Your task to perform on an android device: turn off sleep mode Image 0: 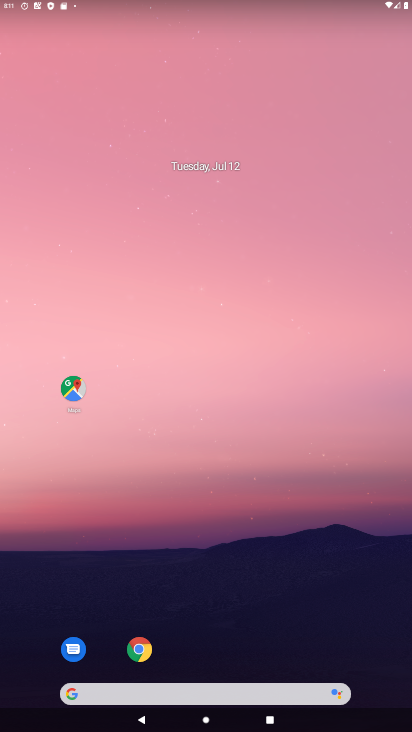
Step 0: drag from (285, 647) to (279, 146)
Your task to perform on an android device: turn off sleep mode Image 1: 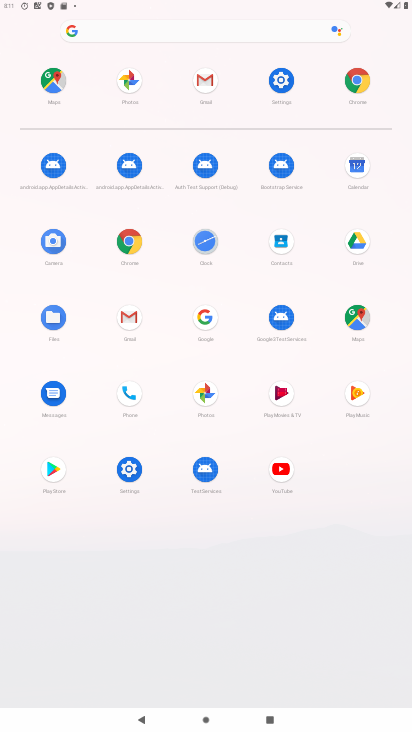
Step 1: click (290, 81)
Your task to perform on an android device: turn off sleep mode Image 2: 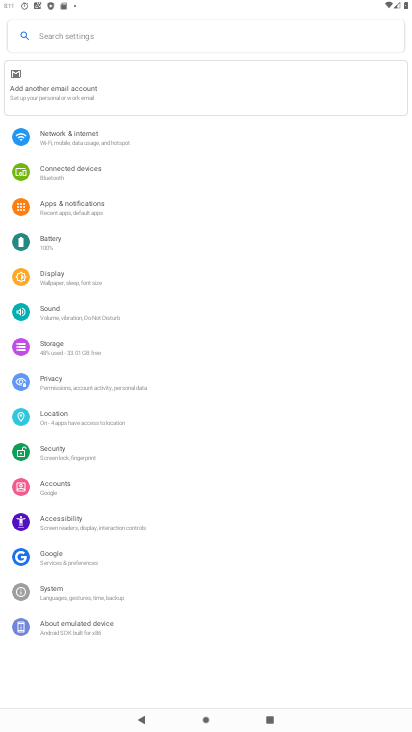
Step 2: click (90, 280)
Your task to perform on an android device: turn off sleep mode Image 3: 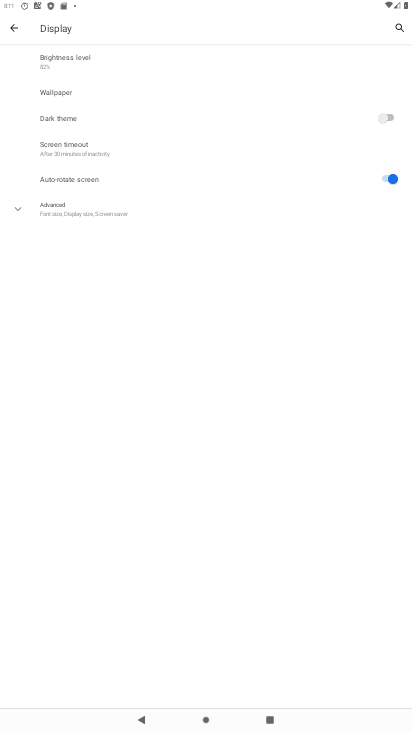
Step 3: click (98, 146)
Your task to perform on an android device: turn off sleep mode Image 4: 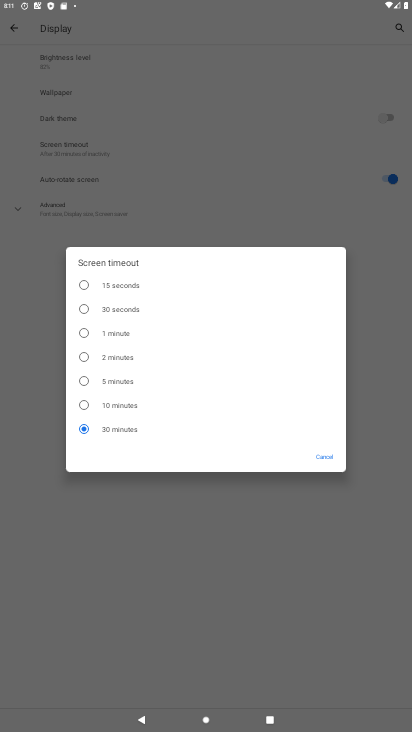
Step 4: task complete